Your task to perform on an android device: turn on airplane mode Image 0: 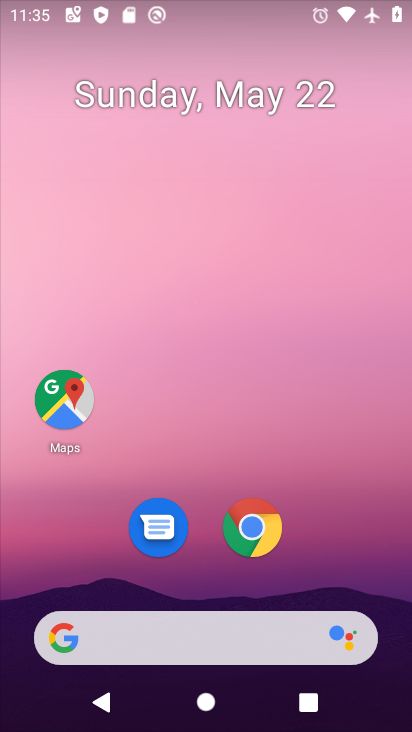
Step 0: drag from (357, 580) to (313, 149)
Your task to perform on an android device: turn on airplane mode Image 1: 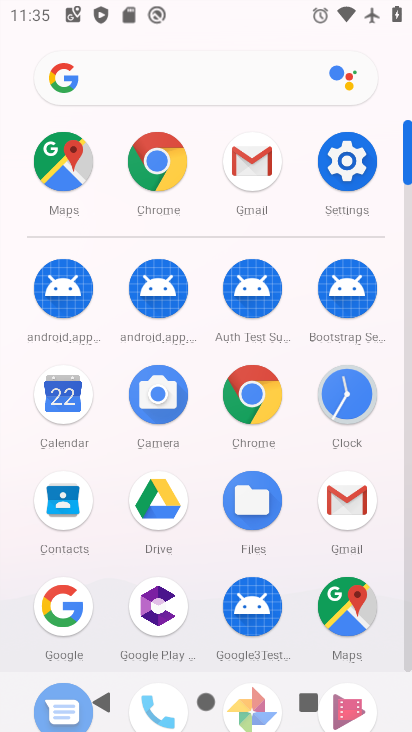
Step 1: click (357, 198)
Your task to perform on an android device: turn on airplane mode Image 2: 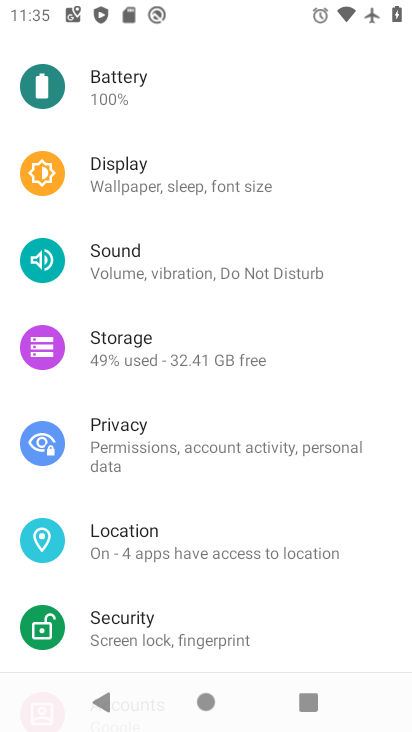
Step 2: drag from (209, 188) to (258, 503)
Your task to perform on an android device: turn on airplane mode Image 3: 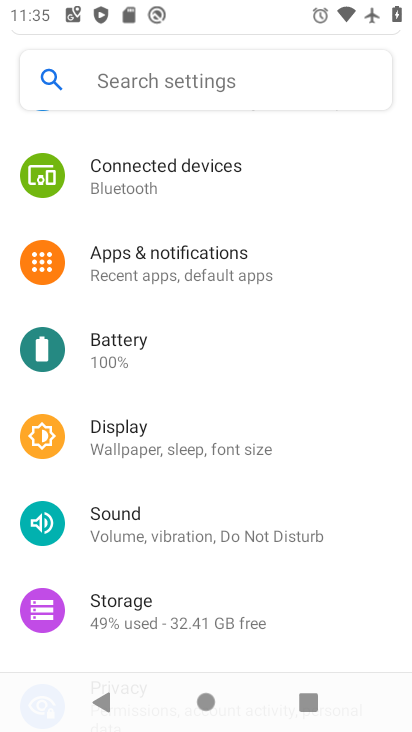
Step 3: drag from (171, 274) to (220, 616)
Your task to perform on an android device: turn on airplane mode Image 4: 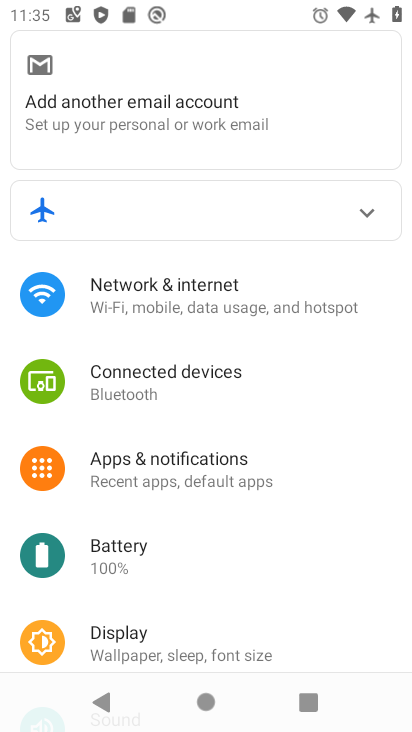
Step 4: click (230, 328)
Your task to perform on an android device: turn on airplane mode Image 5: 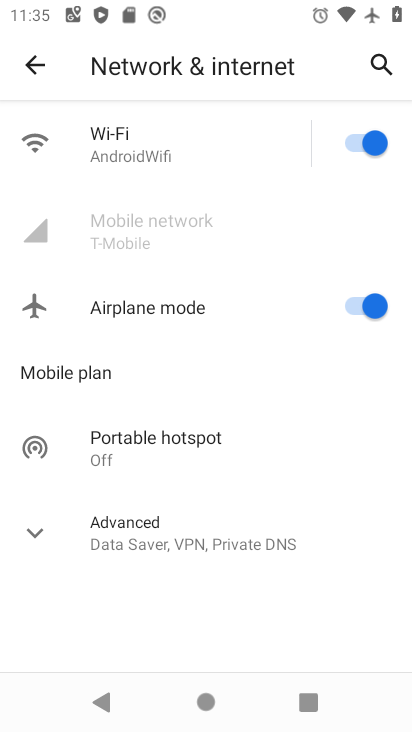
Step 5: task complete